Your task to perform on an android device: Go to accessibility settings Image 0: 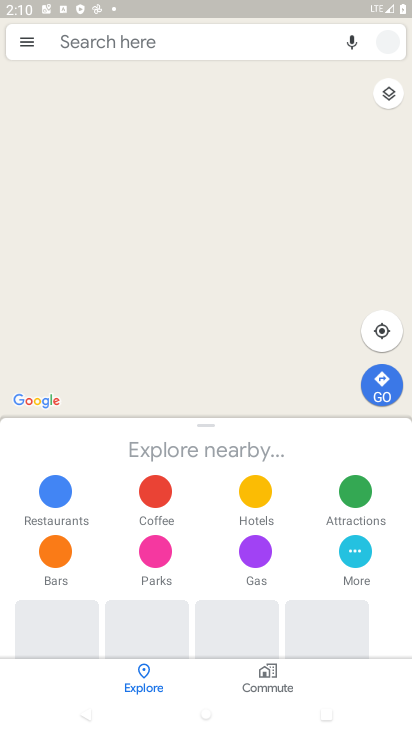
Step 0: press home button
Your task to perform on an android device: Go to accessibility settings Image 1: 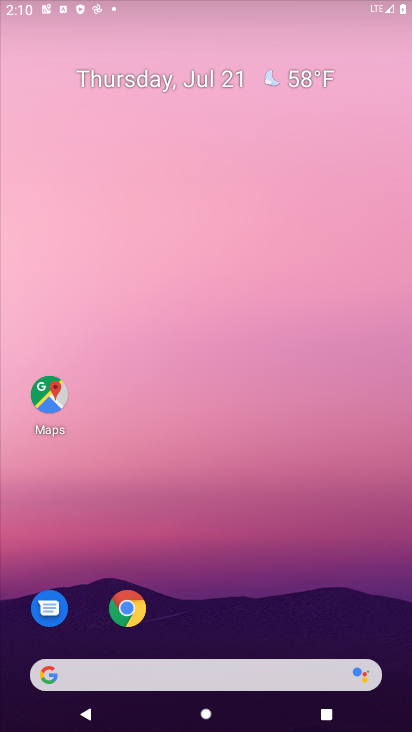
Step 1: drag from (399, 658) to (210, 42)
Your task to perform on an android device: Go to accessibility settings Image 2: 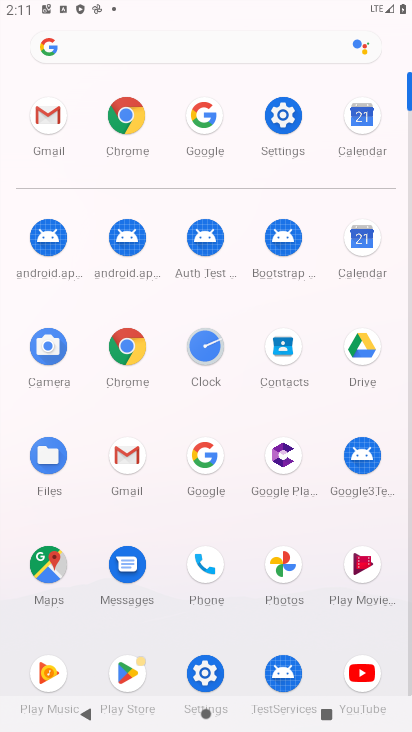
Step 2: click (200, 673)
Your task to perform on an android device: Go to accessibility settings Image 3: 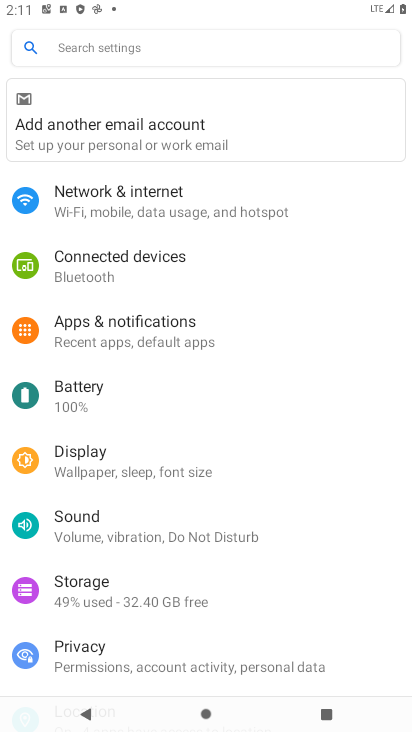
Step 3: drag from (104, 635) to (153, 182)
Your task to perform on an android device: Go to accessibility settings Image 4: 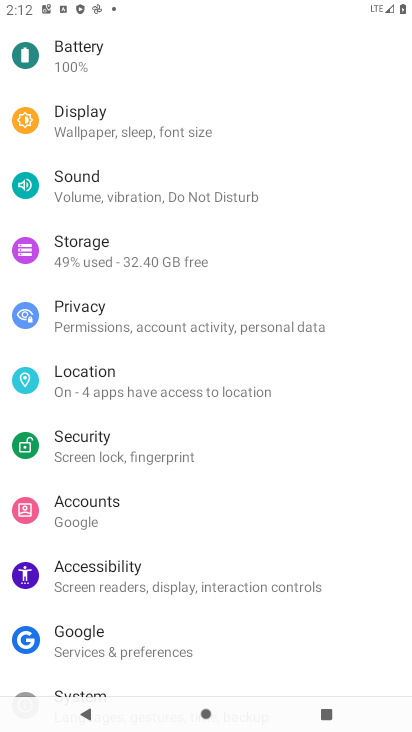
Step 4: click (152, 592)
Your task to perform on an android device: Go to accessibility settings Image 5: 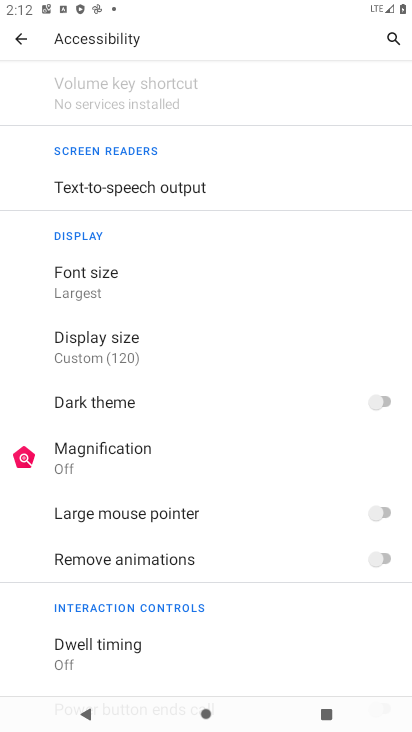
Step 5: task complete